Your task to perform on an android device: add a label to a message in the gmail app Image 0: 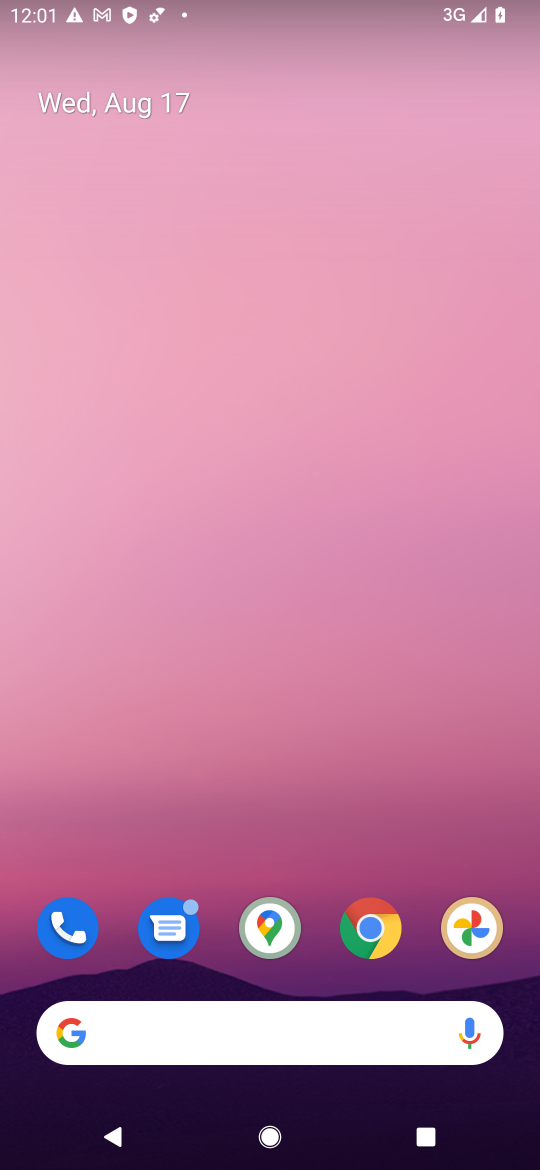
Step 0: drag from (274, 761) to (323, 251)
Your task to perform on an android device: add a label to a message in the gmail app Image 1: 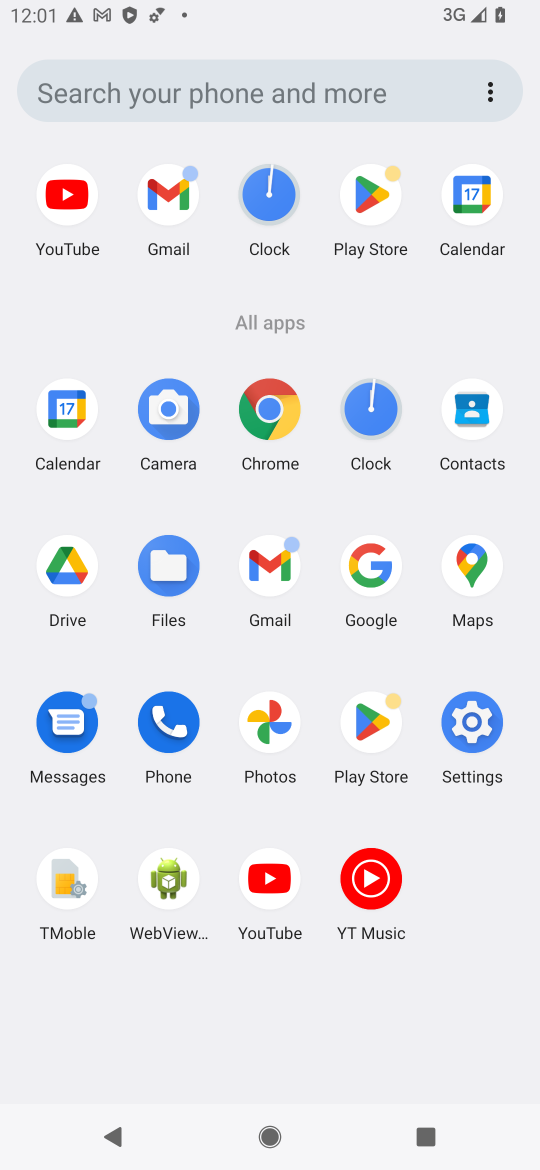
Step 1: click (176, 198)
Your task to perform on an android device: add a label to a message in the gmail app Image 2: 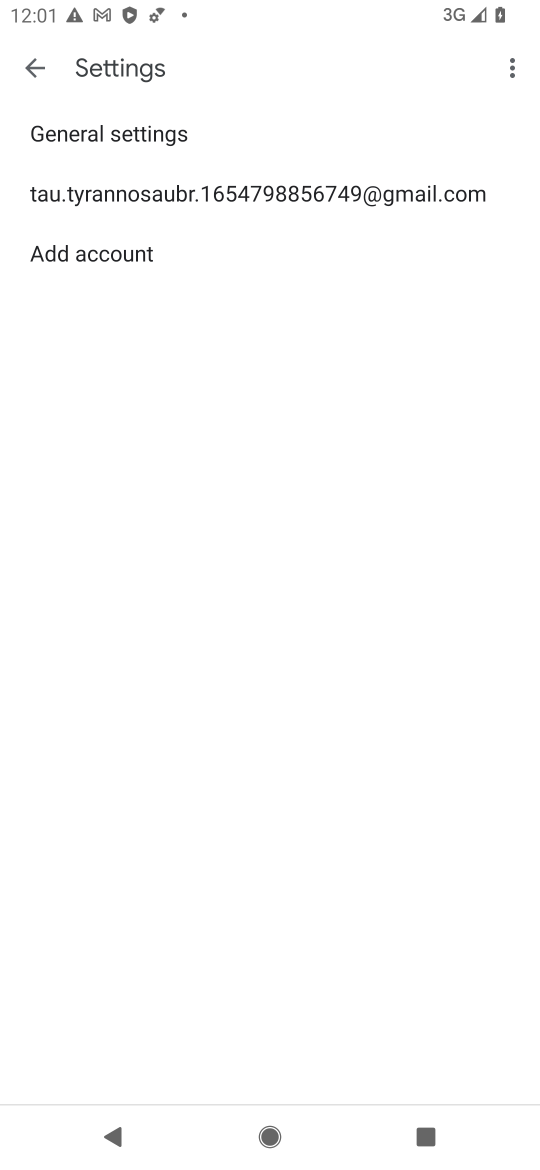
Step 2: click (176, 198)
Your task to perform on an android device: add a label to a message in the gmail app Image 3: 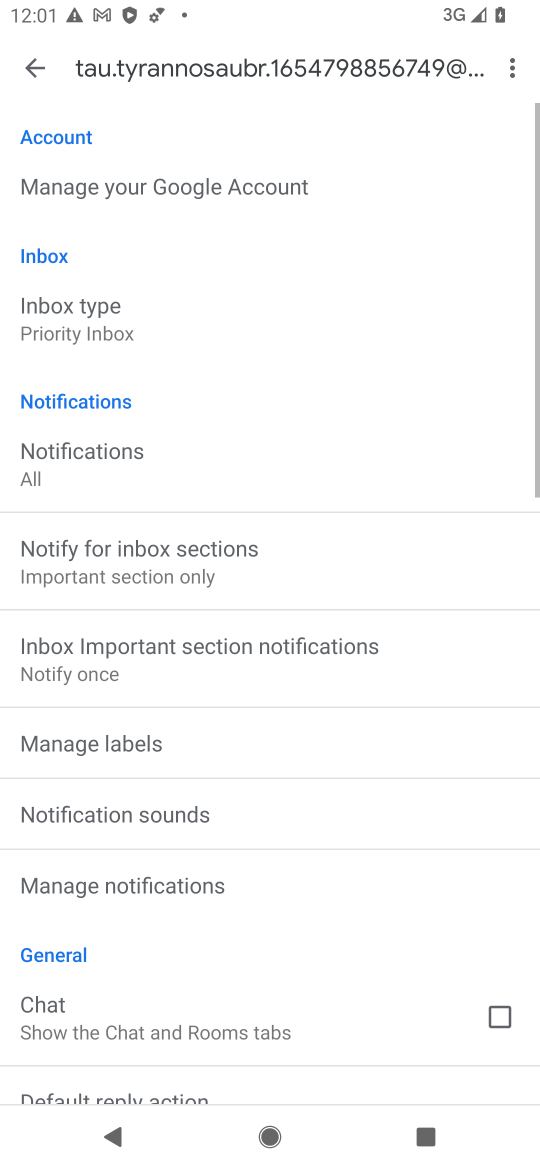
Step 3: click (37, 65)
Your task to perform on an android device: add a label to a message in the gmail app Image 4: 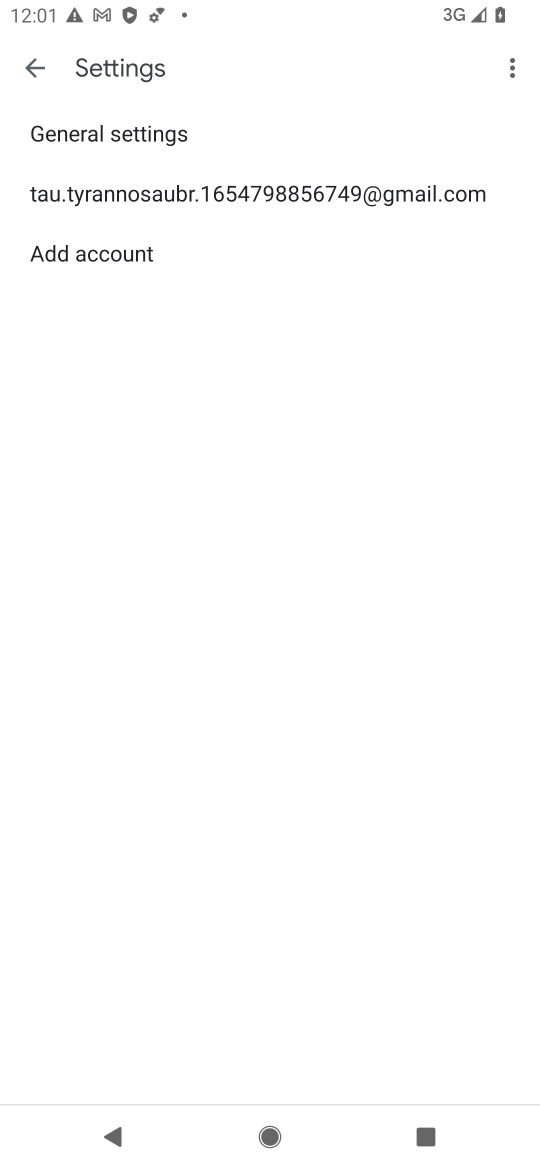
Step 4: click (37, 65)
Your task to perform on an android device: add a label to a message in the gmail app Image 5: 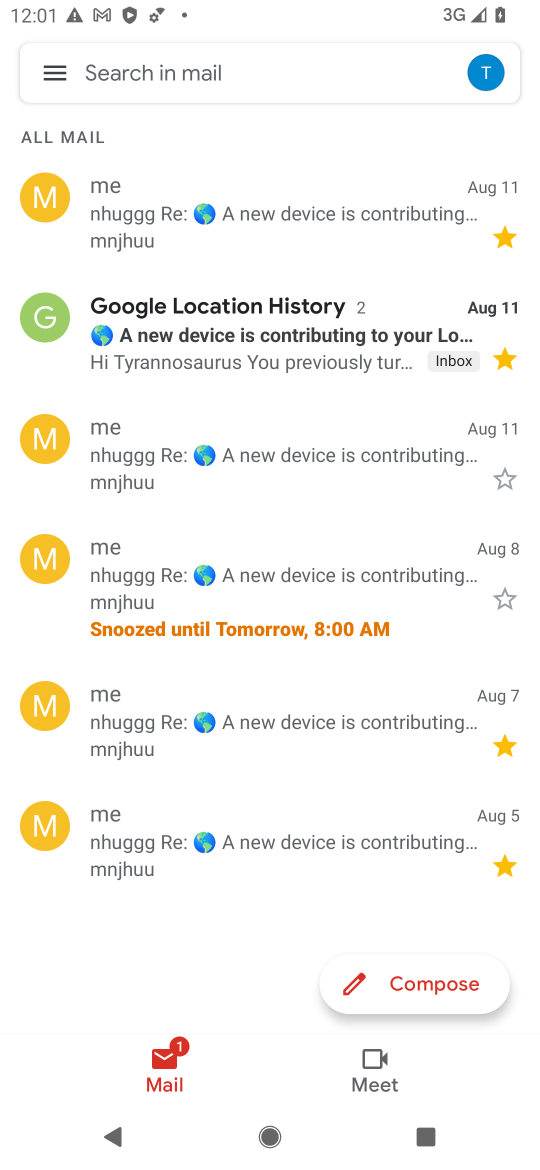
Step 5: click (260, 537)
Your task to perform on an android device: add a label to a message in the gmail app Image 6: 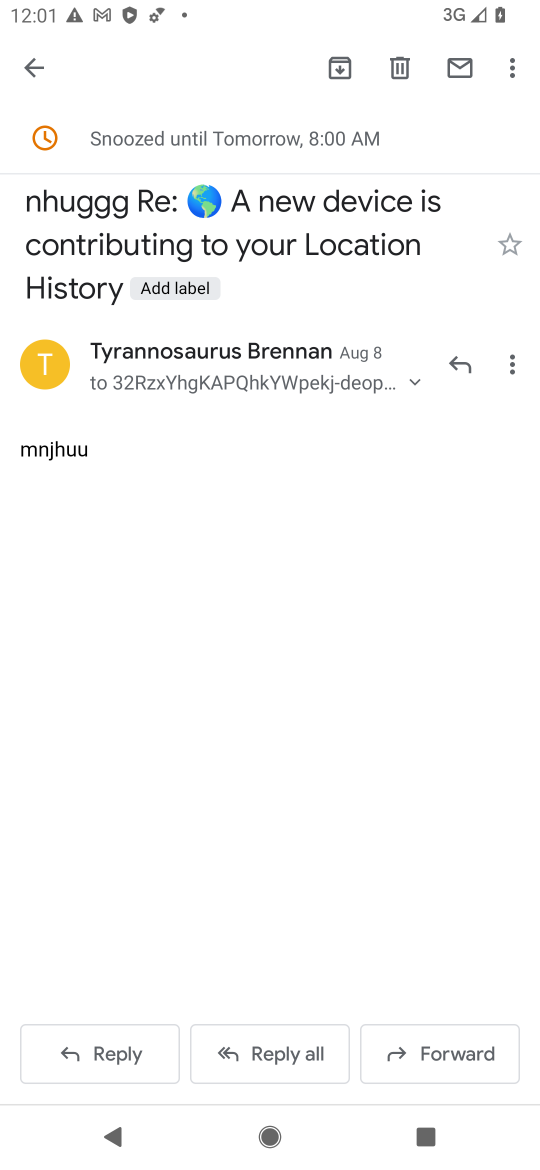
Step 6: click (202, 282)
Your task to perform on an android device: add a label to a message in the gmail app Image 7: 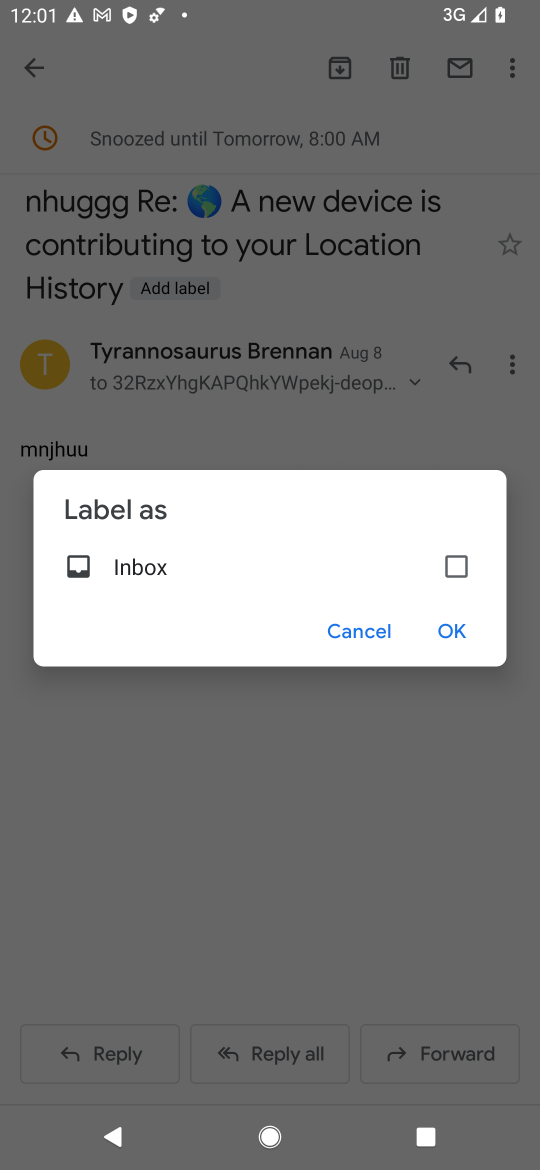
Step 7: click (448, 561)
Your task to perform on an android device: add a label to a message in the gmail app Image 8: 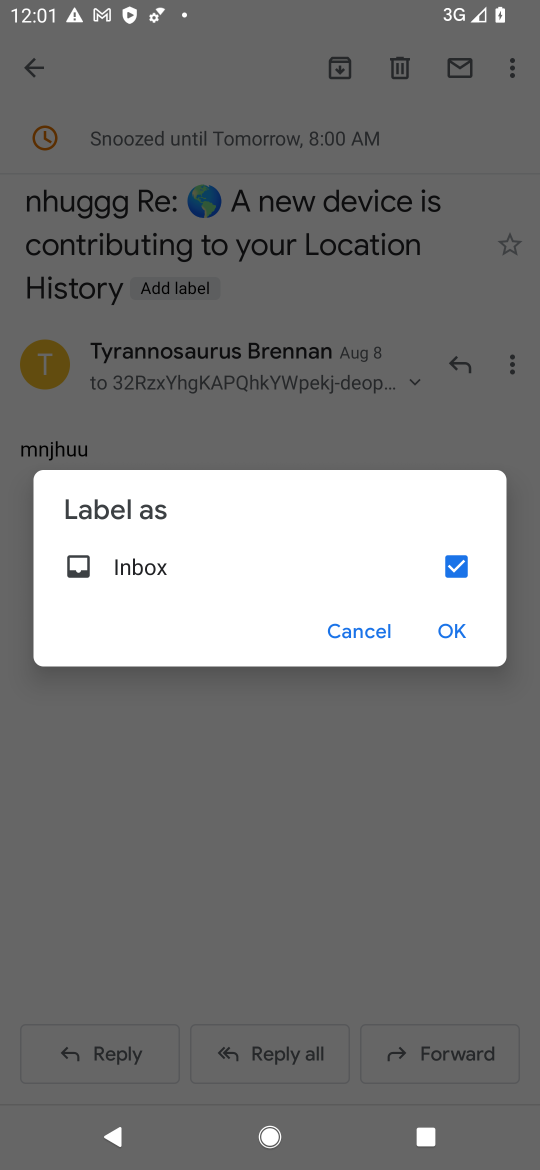
Step 8: click (444, 640)
Your task to perform on an android device: add a label to a message in the gmail app Image 9: 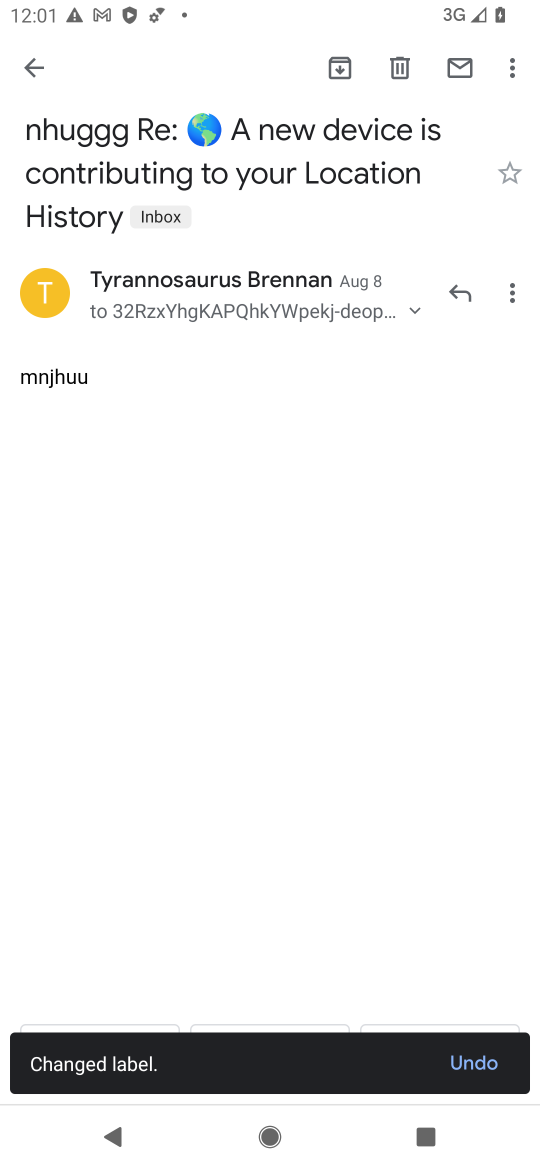
Step 9: task complete